Your task to perform on an android device: add a label to a message in the gmail app Image 0: 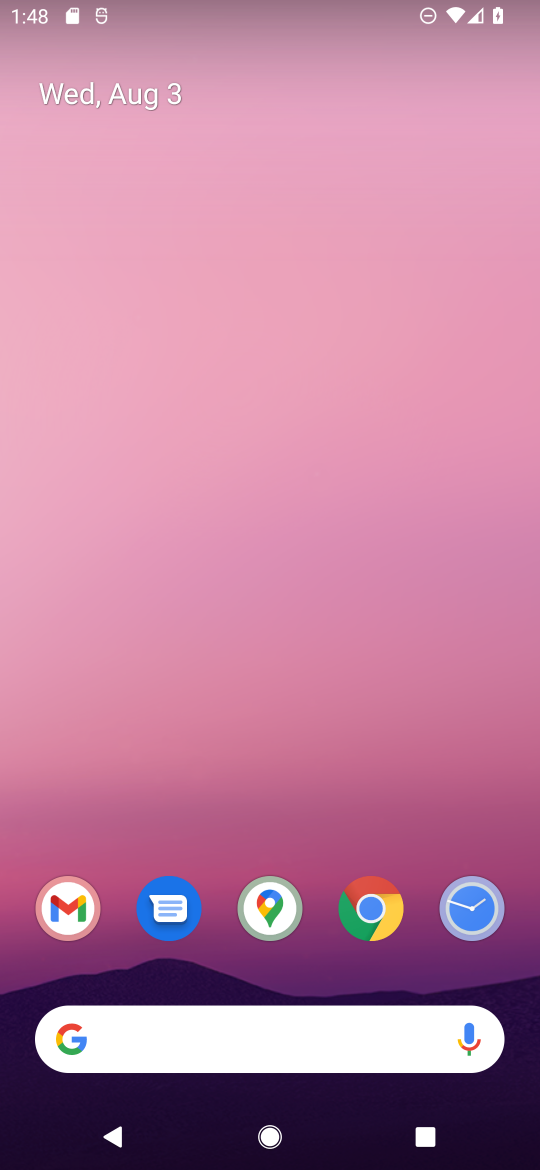
Step 0: click (74, 913)
Your task to perform on an android device: add a label to a message in the gmail app Image 1: 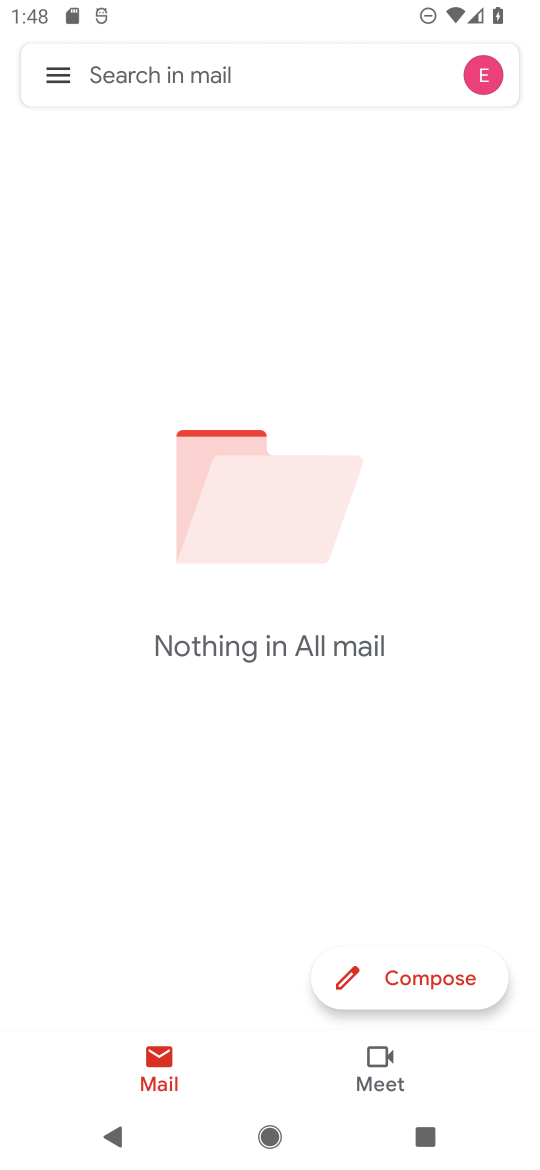
Step 1: task complete